Your task to perform on an android device: turn off sleep mode Image 0: 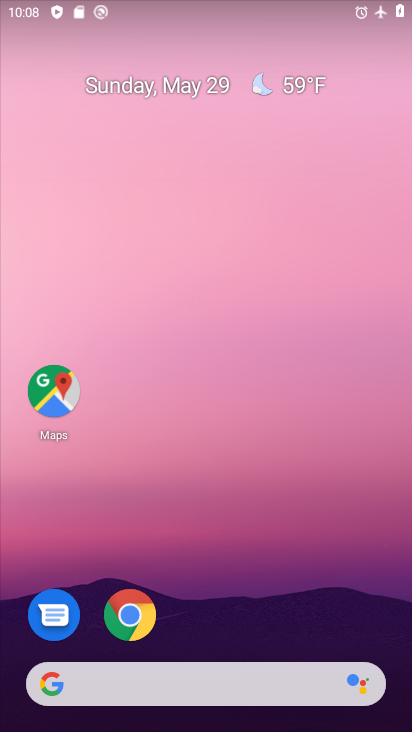
Step 0: click (288, 42)
Your task to perform on an android device: turn off sleep mode Image 1: 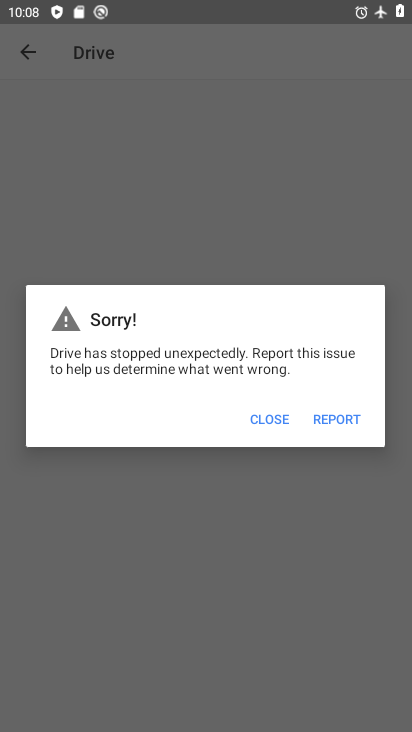
Step 1: press home button
Your task to perform on an android device: turn off sleep mode Image 2: 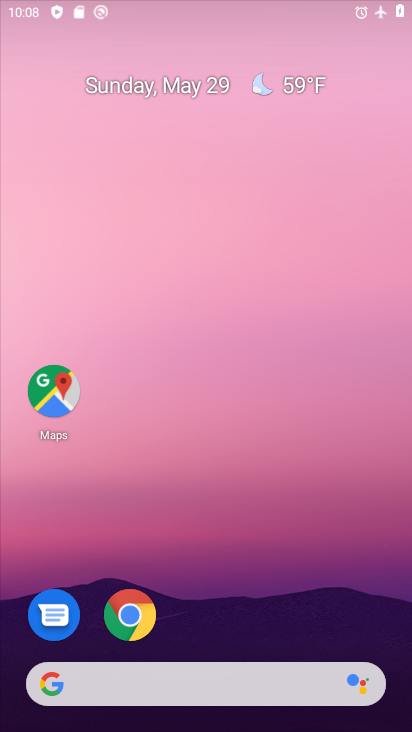
Step 2: drag from (234, 613) to (285, 53)
Your task to perform on an android device: turn off sleep mode Image 3: 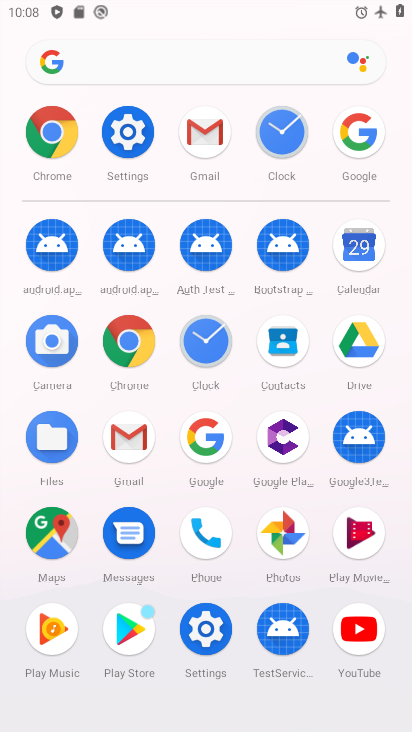
Step 3: click (122, 131)
Your task to perform on an android device: turn off sleep mode Image 4: 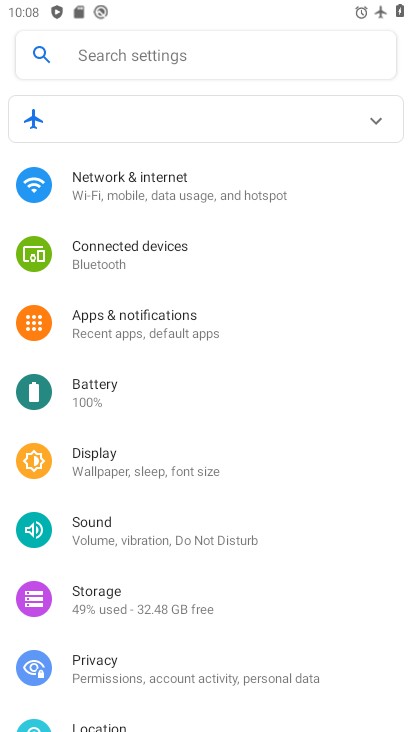
Step 4: click (132, 462)
Your task to perform on an android device: turn off sleep mode Image 5: 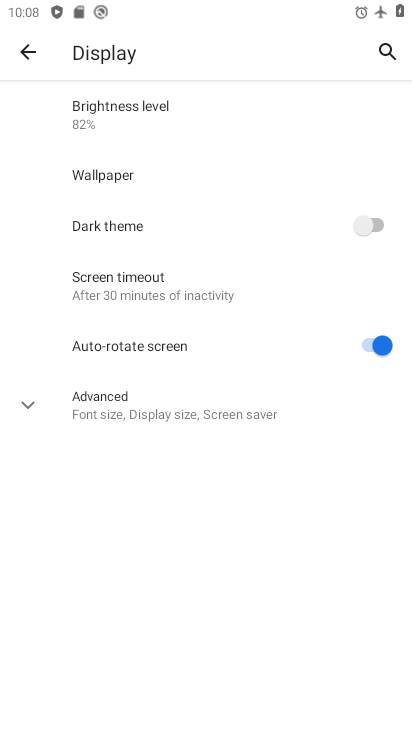
Step 5: click (152, 293)
Your task to perform on an android device: turn off sleep mode Image 6: 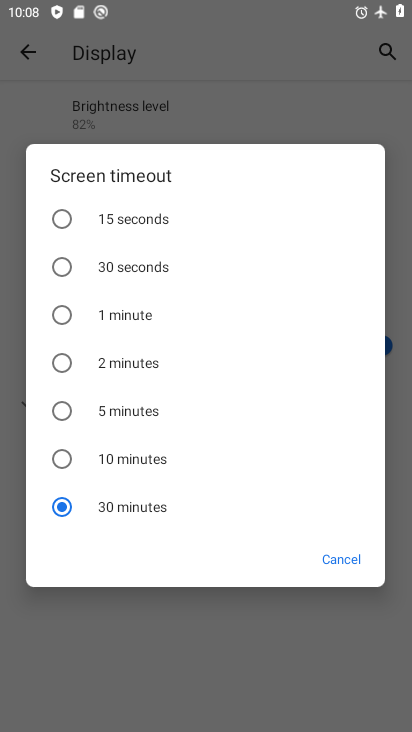
Step 6: task complete